Your task to perform on an android device: Do I have any events this weekend? Image 0: 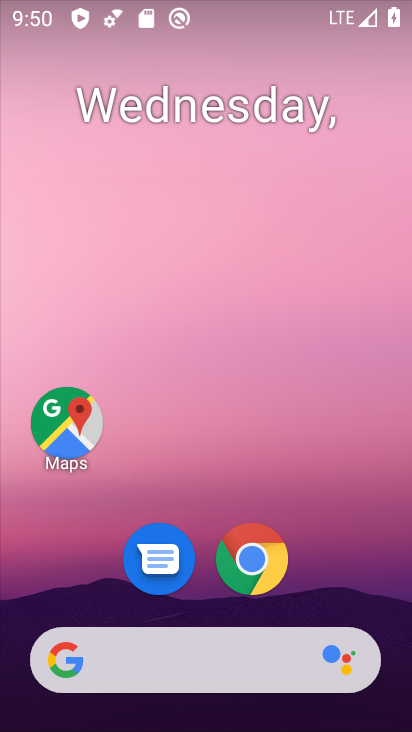
Step 0: drag from (377, 572) to (376, 22)
Your task to perform on an android device: Do I have any events this weekend? Image 1: 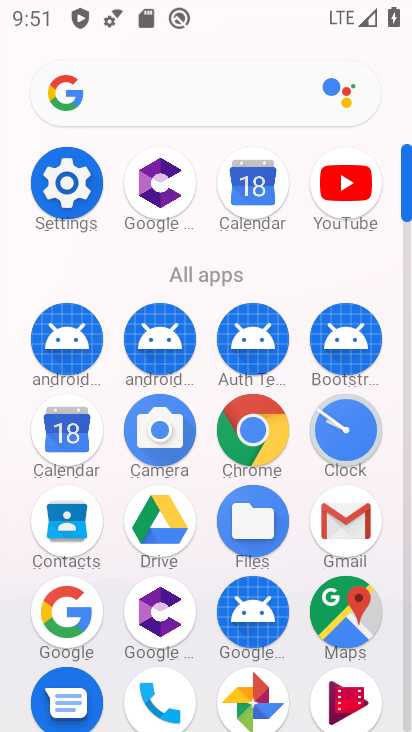
Step 1: click (77, 445)
Your task to perform on an android device: Do I have any events this weekend? Image 2: 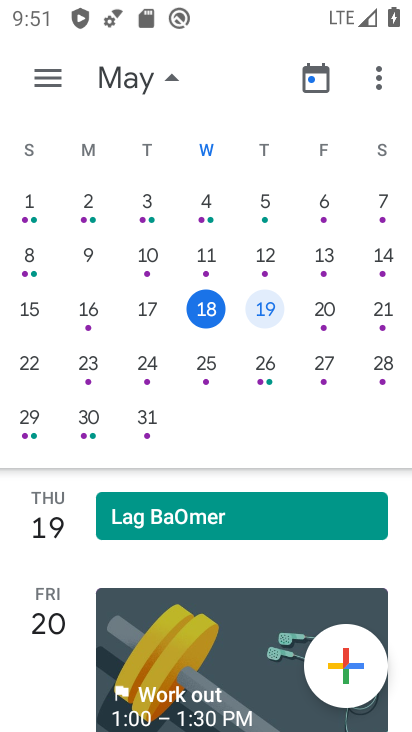
Step 2: click (327, 307)
Your task to perform on an android device: Do I have any events this weekend? Image 3: 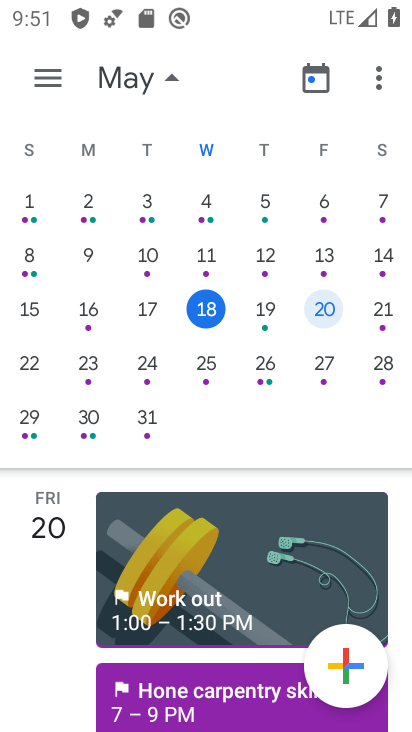
Step 3: task complete